Your task to perform on an android device: check the backup settings in the google photos Image 0: 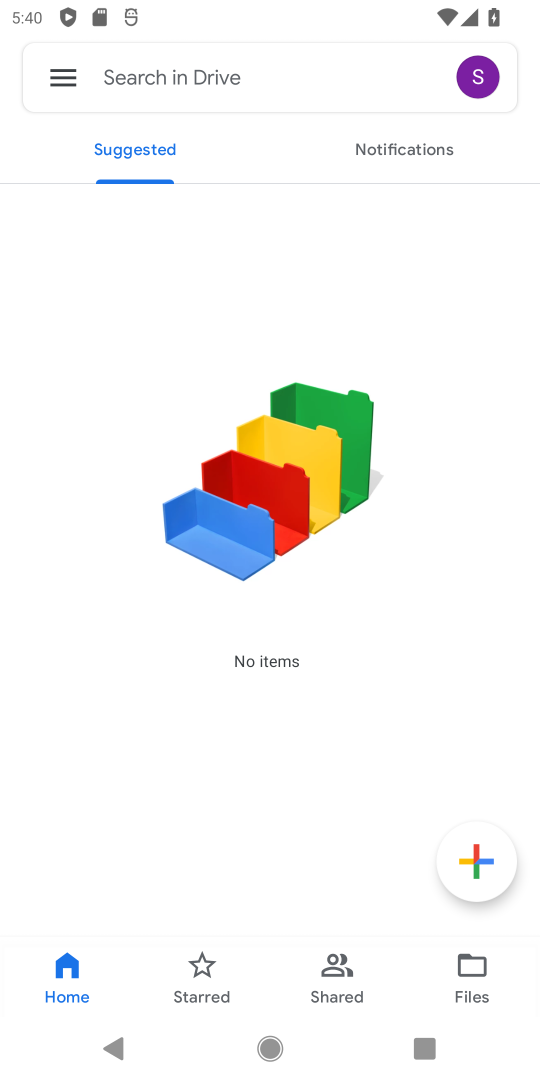
Step 0: press home button
Your task to perform on an android device: check the backup settings in the google photos Image 1: 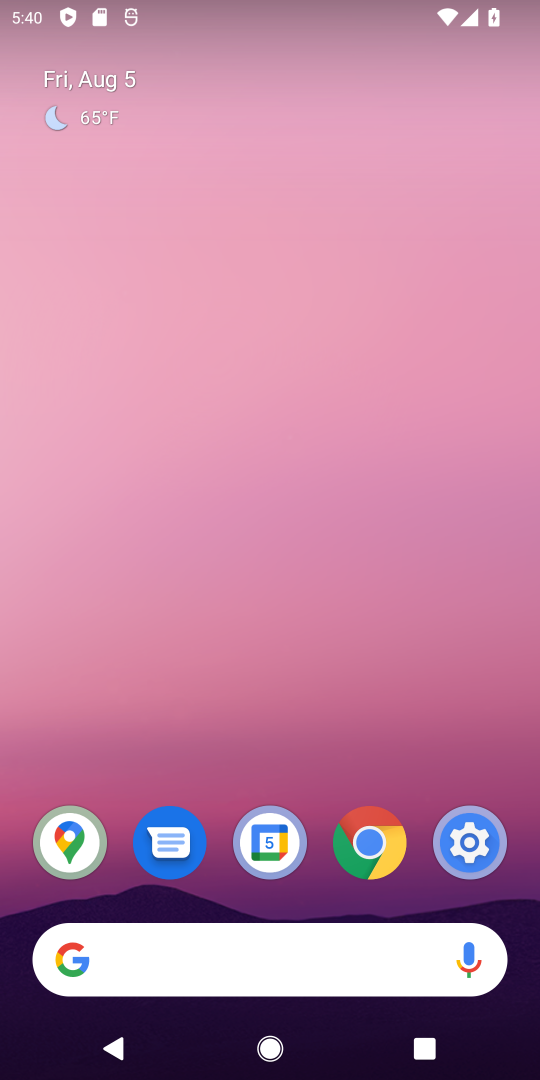
Step 1: drag from (44, 830) to (380, 180)
Your task to perform on an android device: check the backup settings in the google photos Image 2: 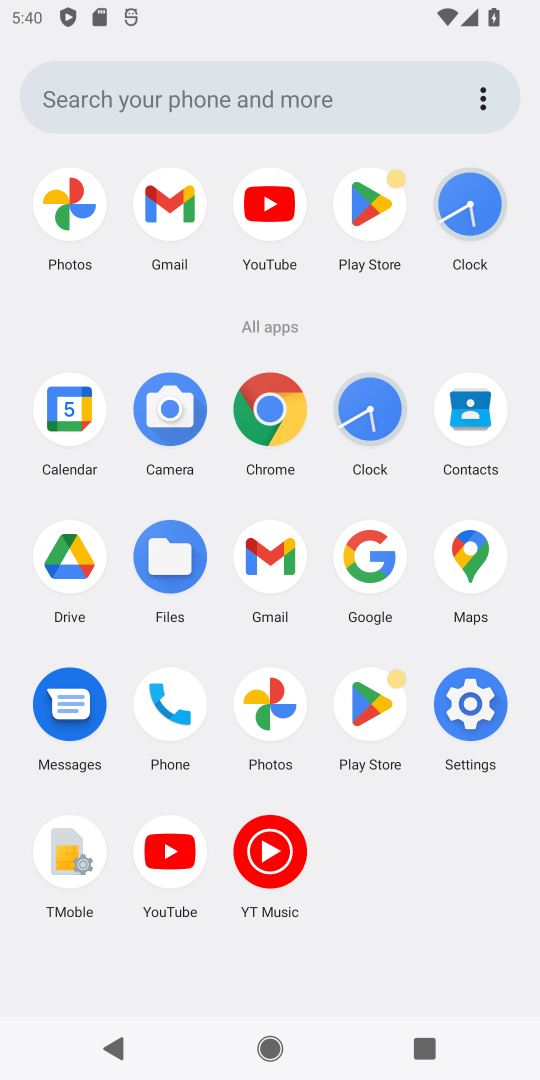
Step 2: click (287, 729)
Your task to perform on an android device: check the backup settings in the google photos Image 3: 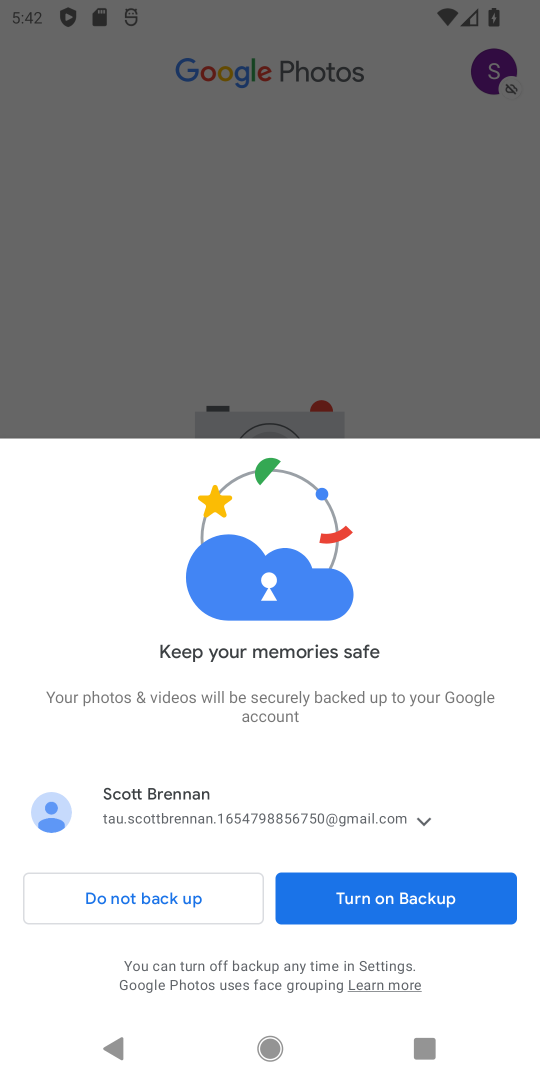
Step 3: click (189, 887)
Your task to perform on an android device: check the backup settings in the google photos Image 4: 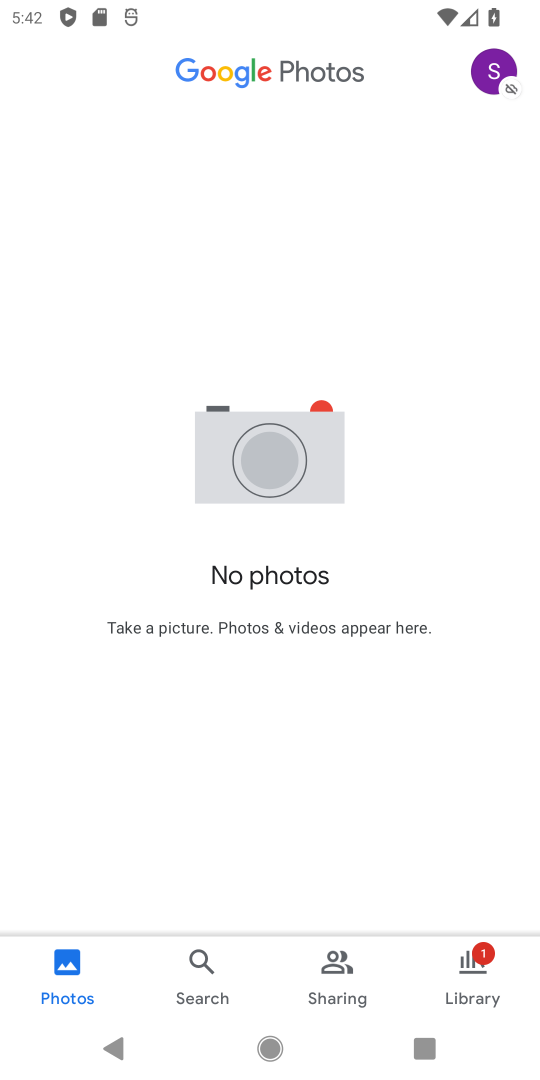
Step 4: task complete